Your task to perform on an android device: Turn off the flashlight Image 0: 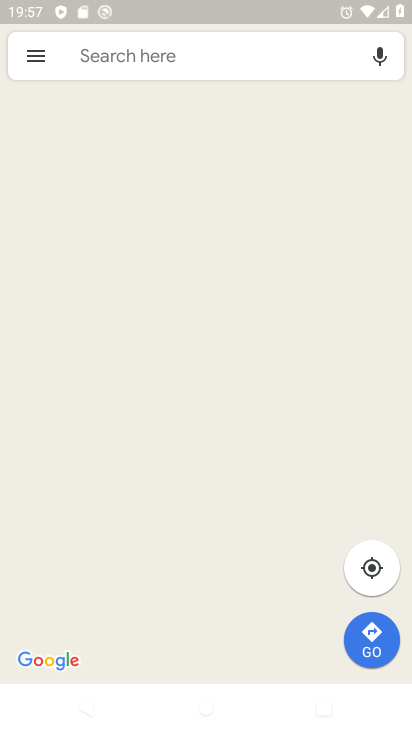
Step 0: drag from (382, 684) to (380, 112)
Your task to perform on an android device: Turn off the flashlight Image 1: 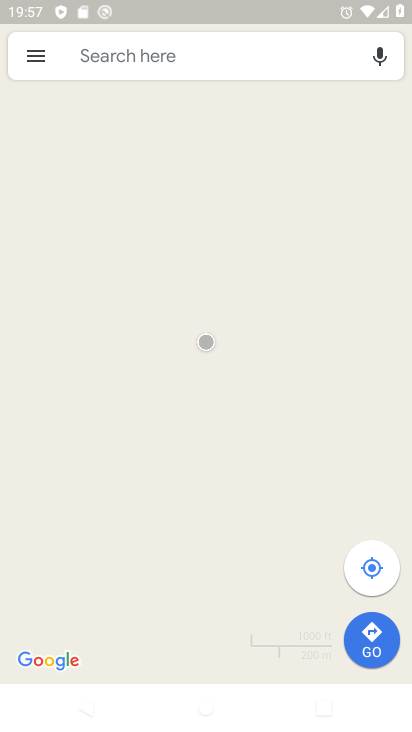
Step 1: press home button
Your task to perform on an android device: Turn off the flashlight Image 2: 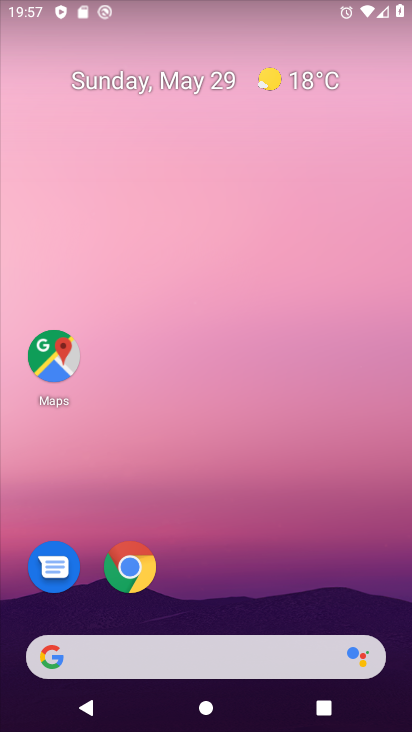
Step 2: drag from (384, 300) to (356, 62)
Your task to perform on an android device: Turn off the flashlight Image 3: 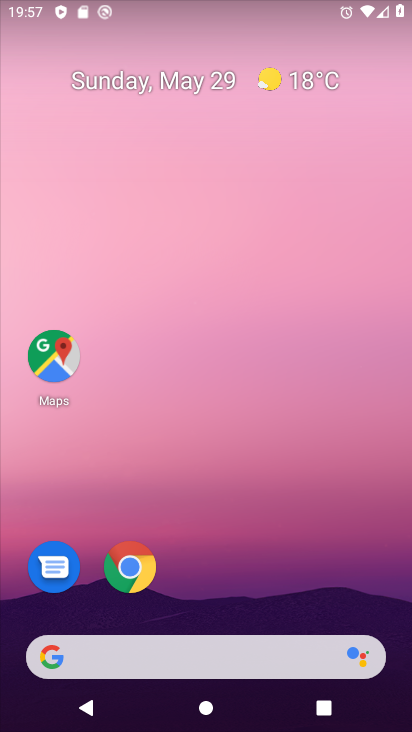
Step 3: drag from (404, 691) to (349, 38)
Your task to perform on an android device: Turn off the flashlight Image 4: 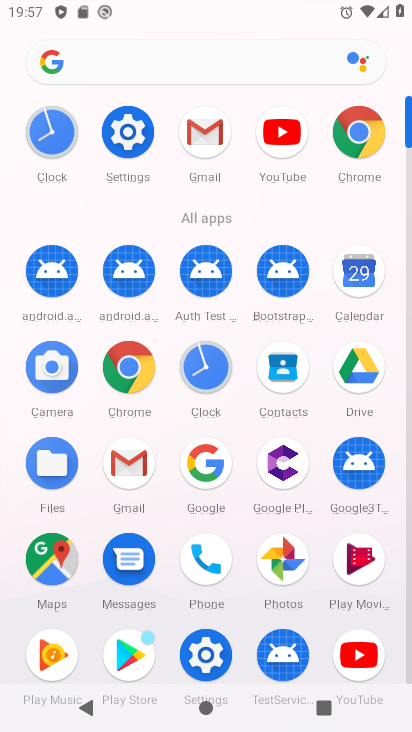
Step 4: click (125, 121)
Your task to perform on an android device: Turn off the flashlight Image 5: 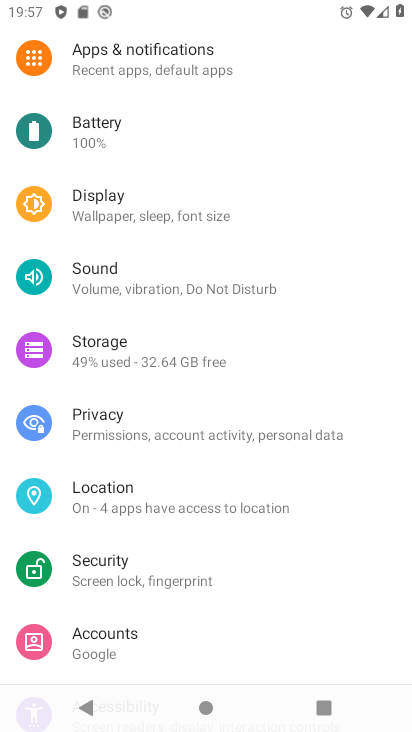
Step 5: click (101, 201)
Your task to perform on an android device: Turn off the flashlight Image 6: 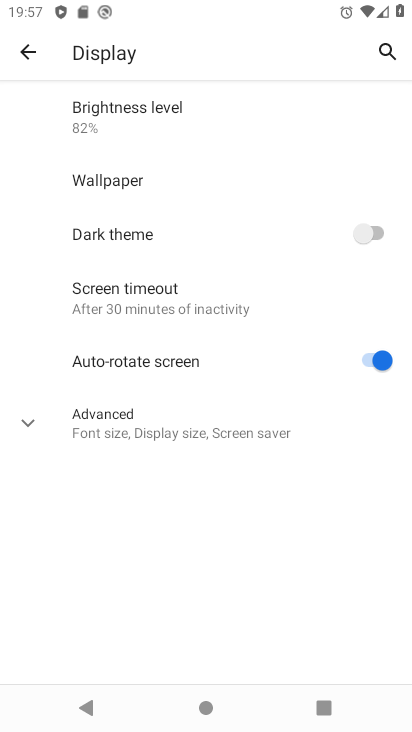
Step 6: click (23, 416)
Your task to perform on an android device: Turn off the flashlight Image 7: 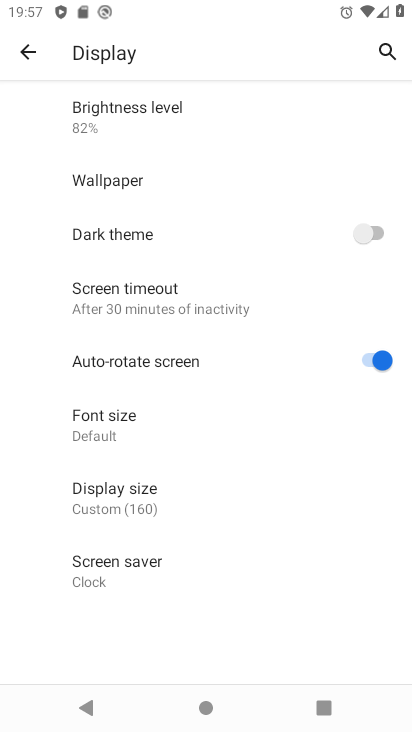
Step 7: task complete